Your task to perform on an android device: all mails in gmail Image 0: 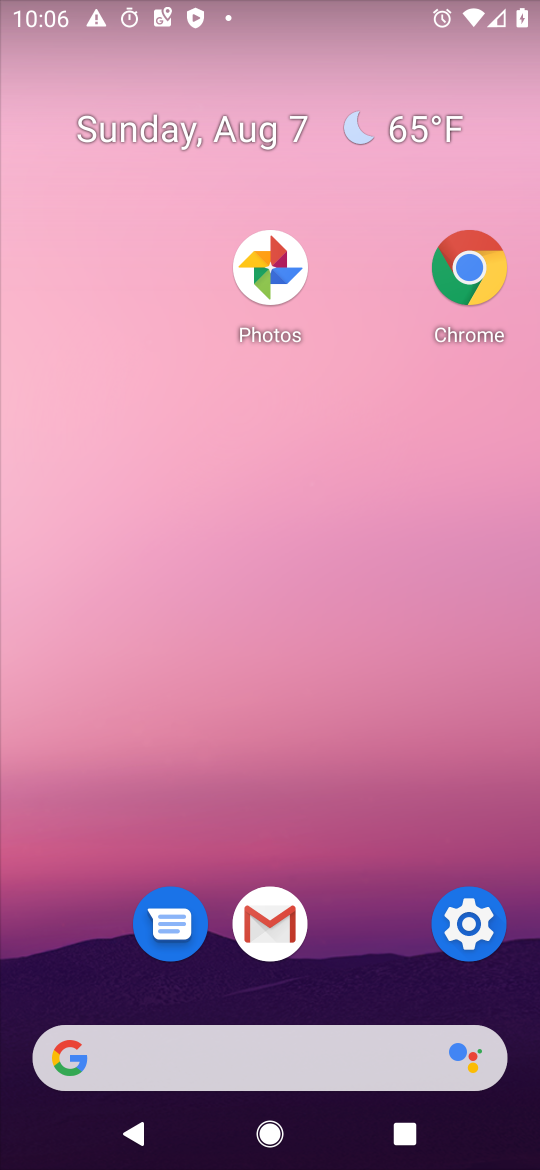
Step 0: drag from (350, 1058) to (374, 284)
Your task to perform on an android device: all mails in gmail Image 1: 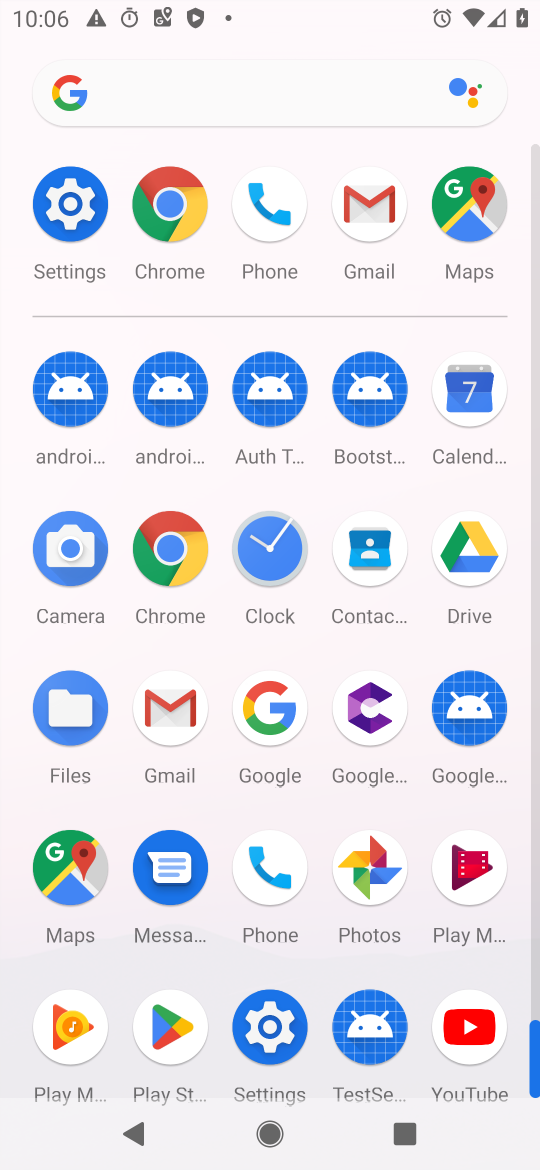
Step 1: click (186, 696)
Your task to perform on an android device: all mails in gmail Image 2: 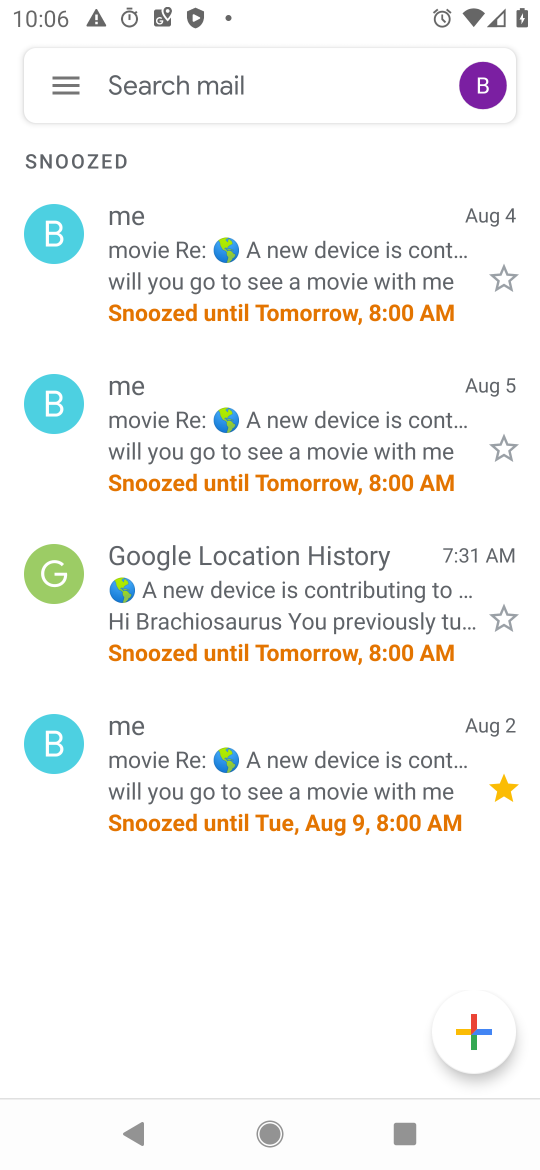
Step 2: click (66, 82)
Your task to perform on an android device: all mails in gmail Image 3: 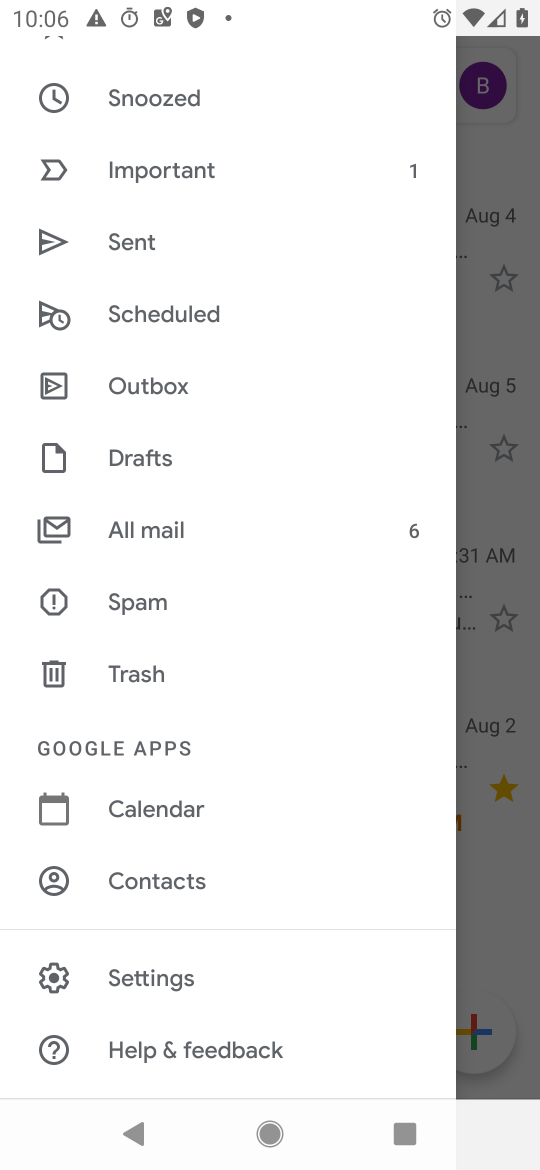
Step 3: click (161, 527)
Your task to perform on an android device: all mails in gmail Image 4: 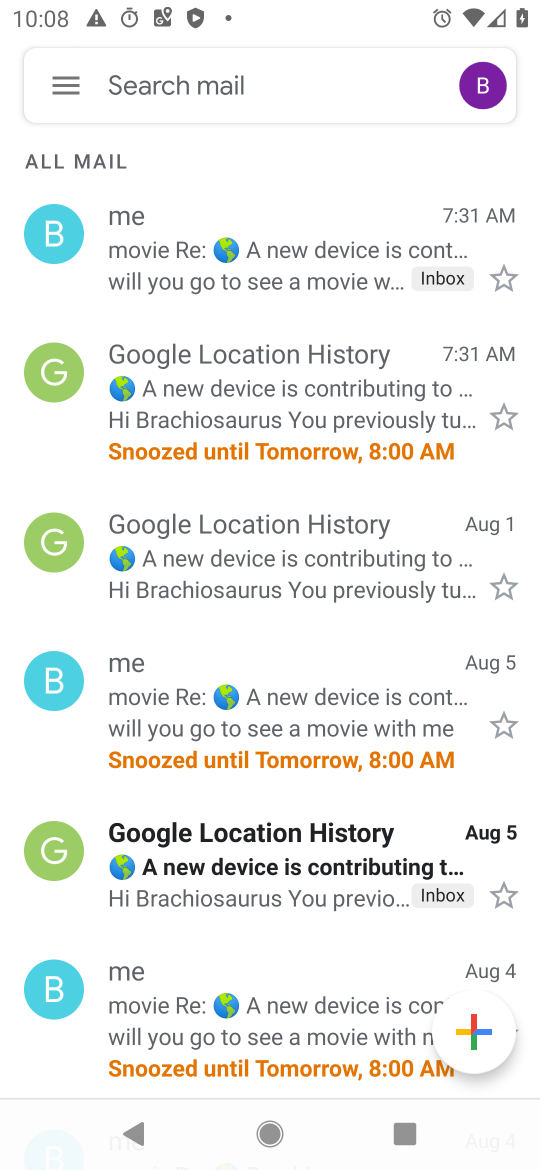
Step 4: click (78, 100)
Your task to perform on an android device: all mails in gmail Image 5: 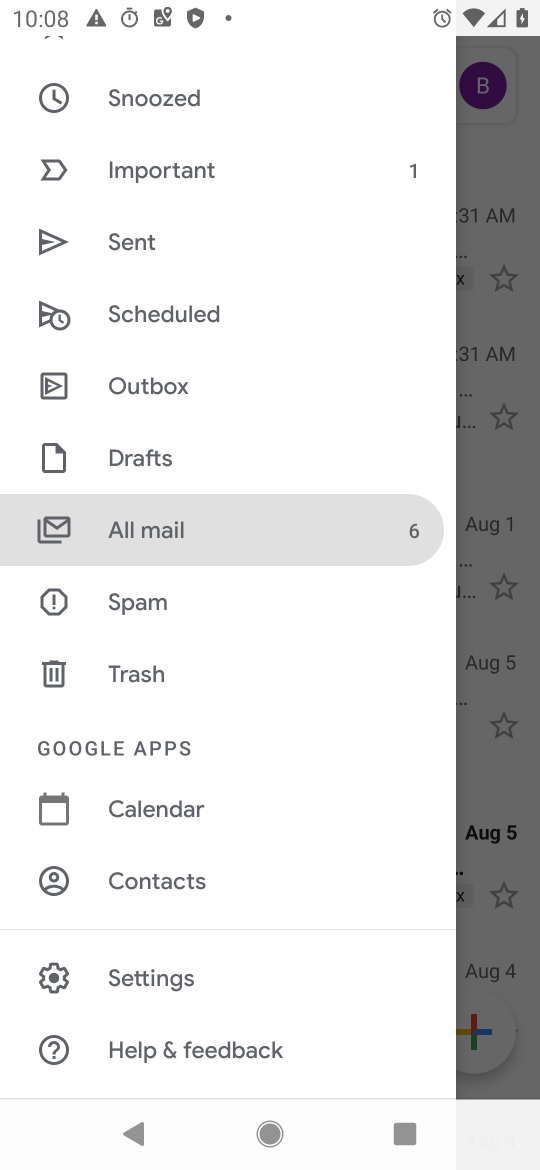
Step 5: click (186, 560)
Your task to perform on an android device: all mails in gmail Image 6: 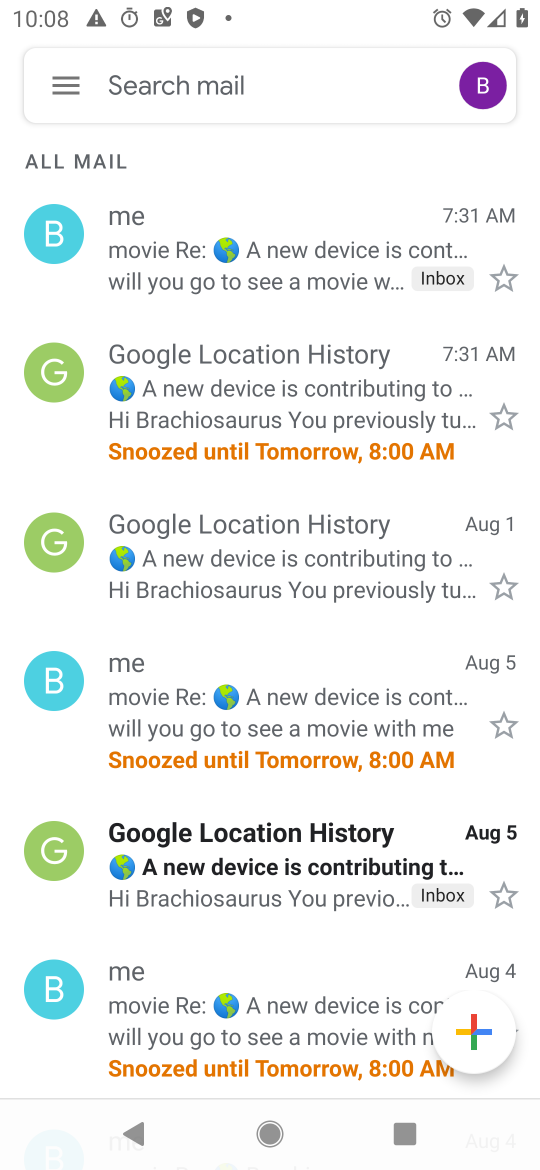
Step 6: task complete